Your task to perform on an android device: clear all cookies in the chrome app Image 0: 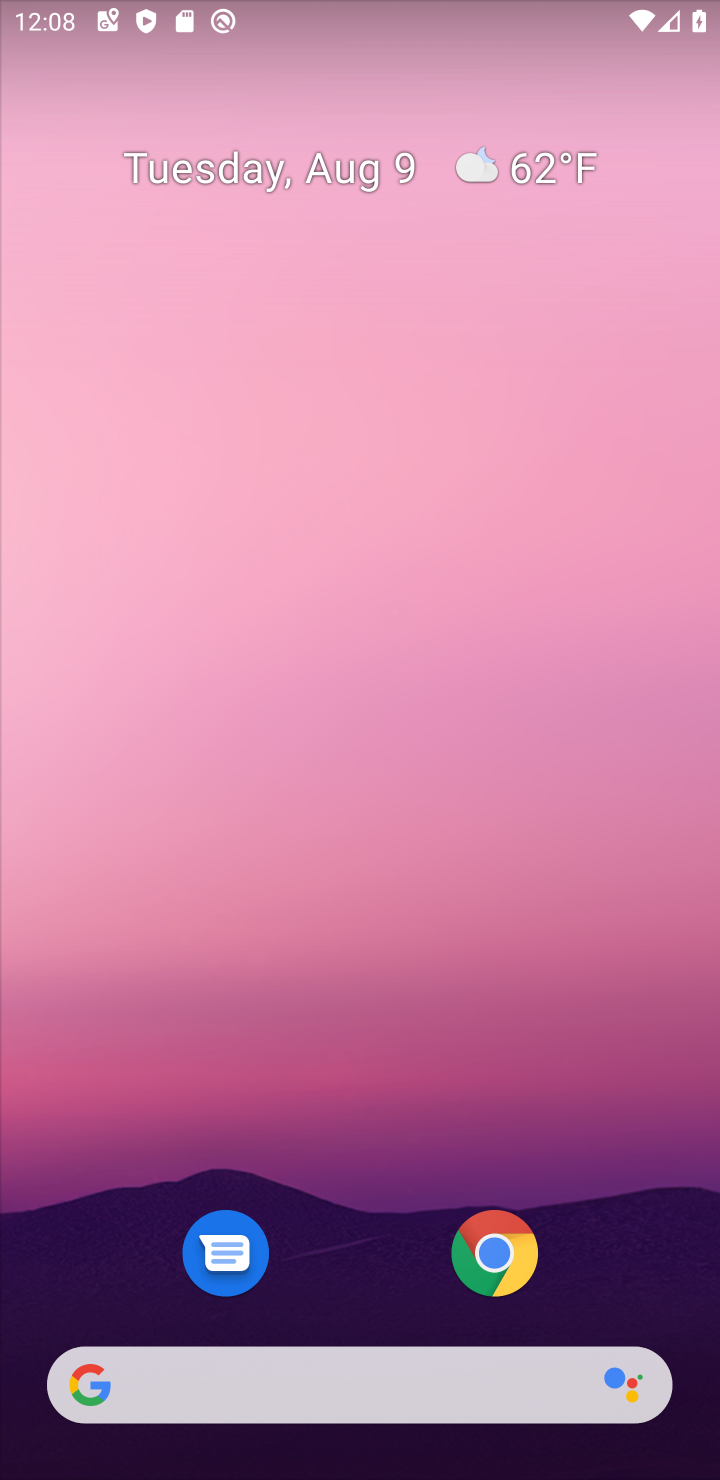
Step 0: drag from (651, 1282) to (440, 93)
Your task to perform on an android device: clear all cookies in the chrome app Image 1: 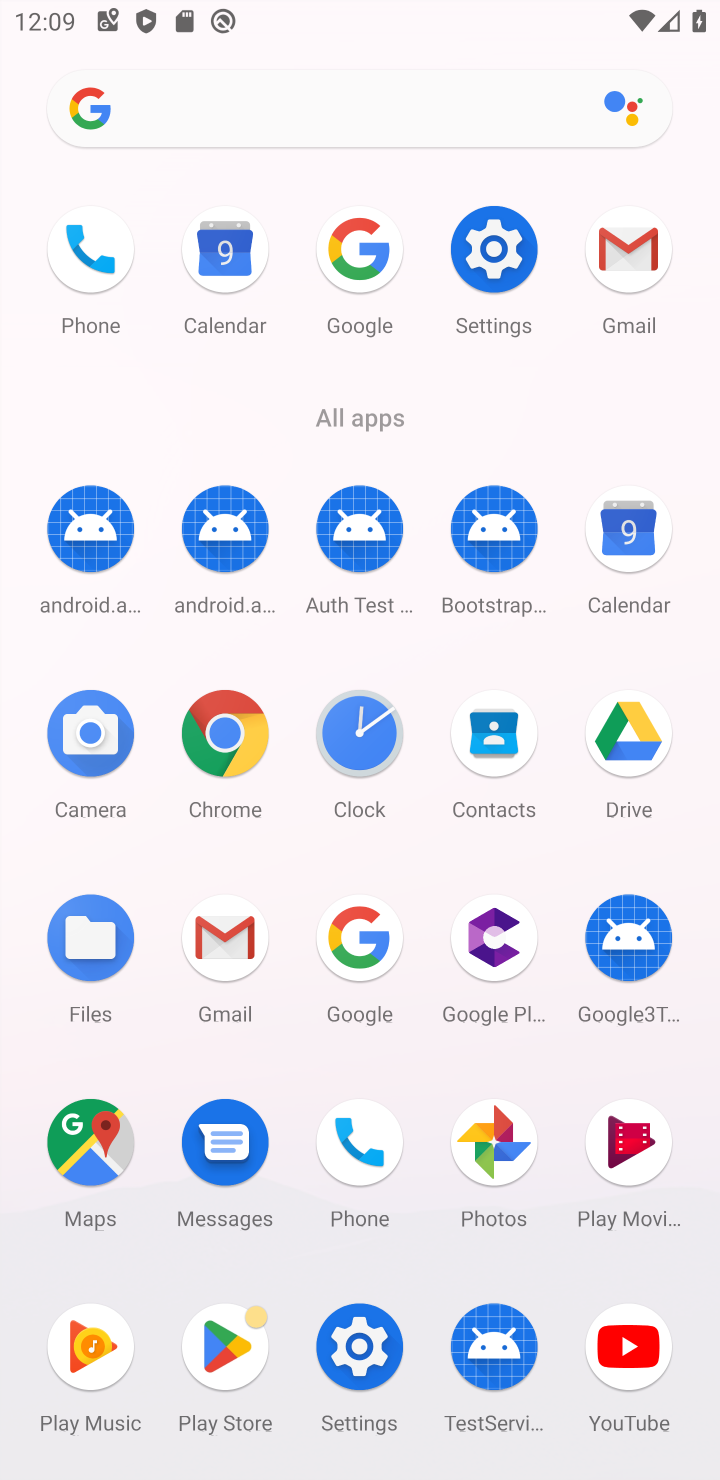
Step 1: click (226, 717)
Your task to perform on an android device: clear all cookies in the chrome app Image 2: 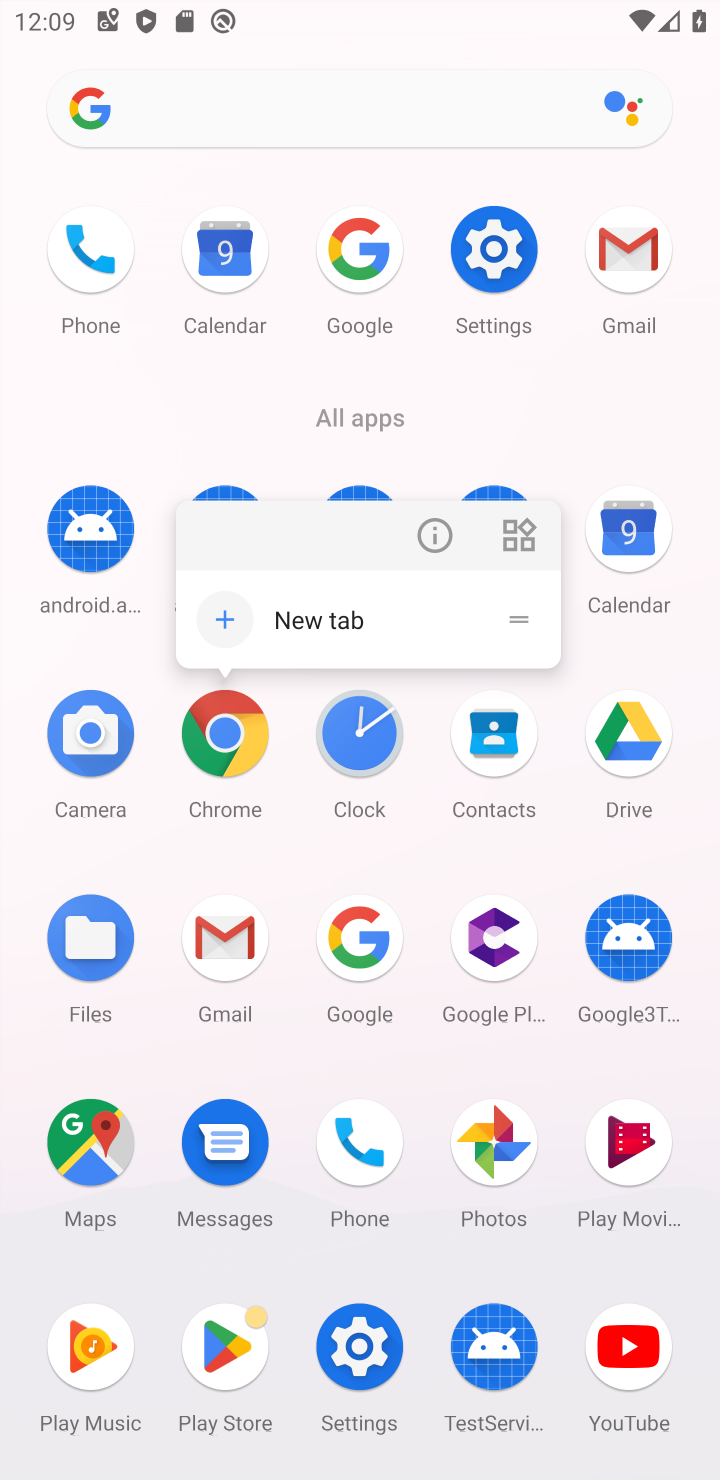
Step 2: click (226, 717)
Your task to perform on an android device: clear all cookies in the chrome app Image 3: 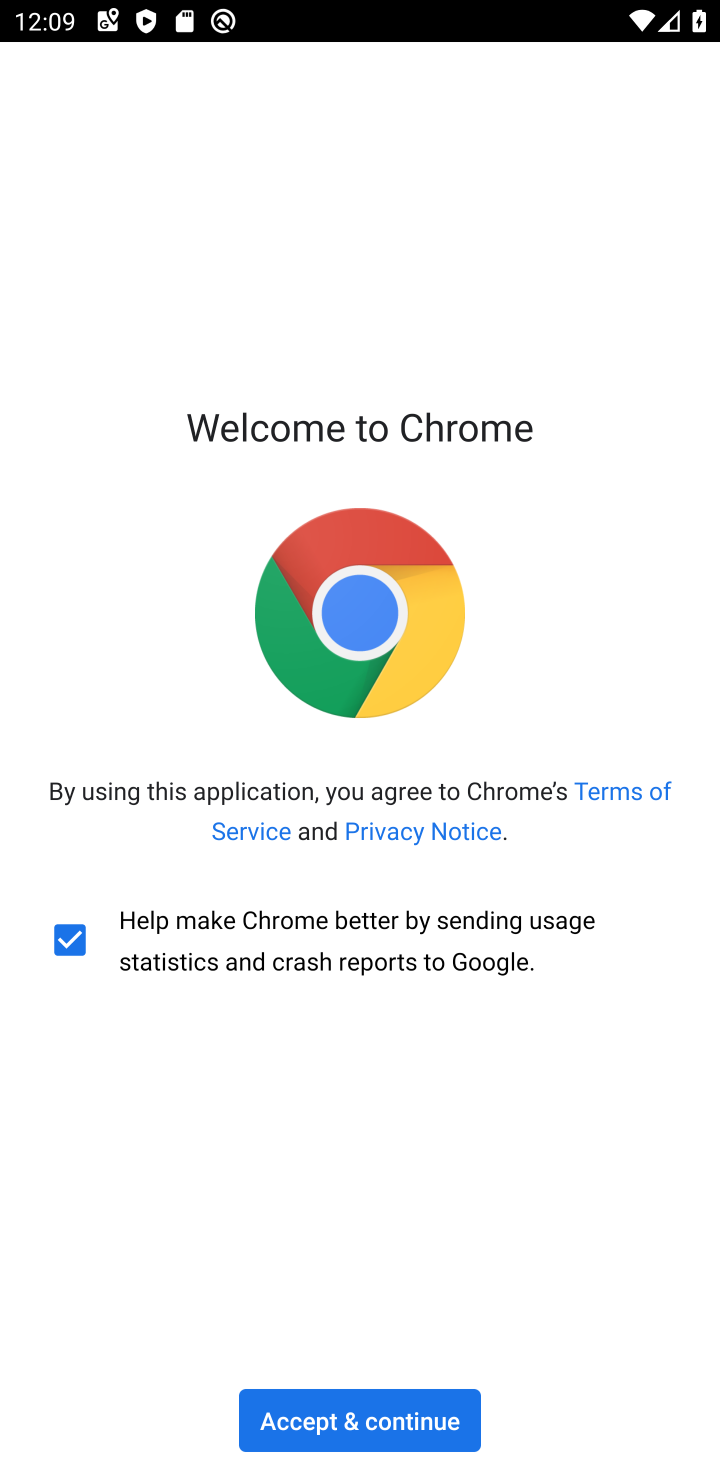
Step 3: click (356, 1417)
Your task to perform on an android device: clear all cookies in the chrome app Image 4: 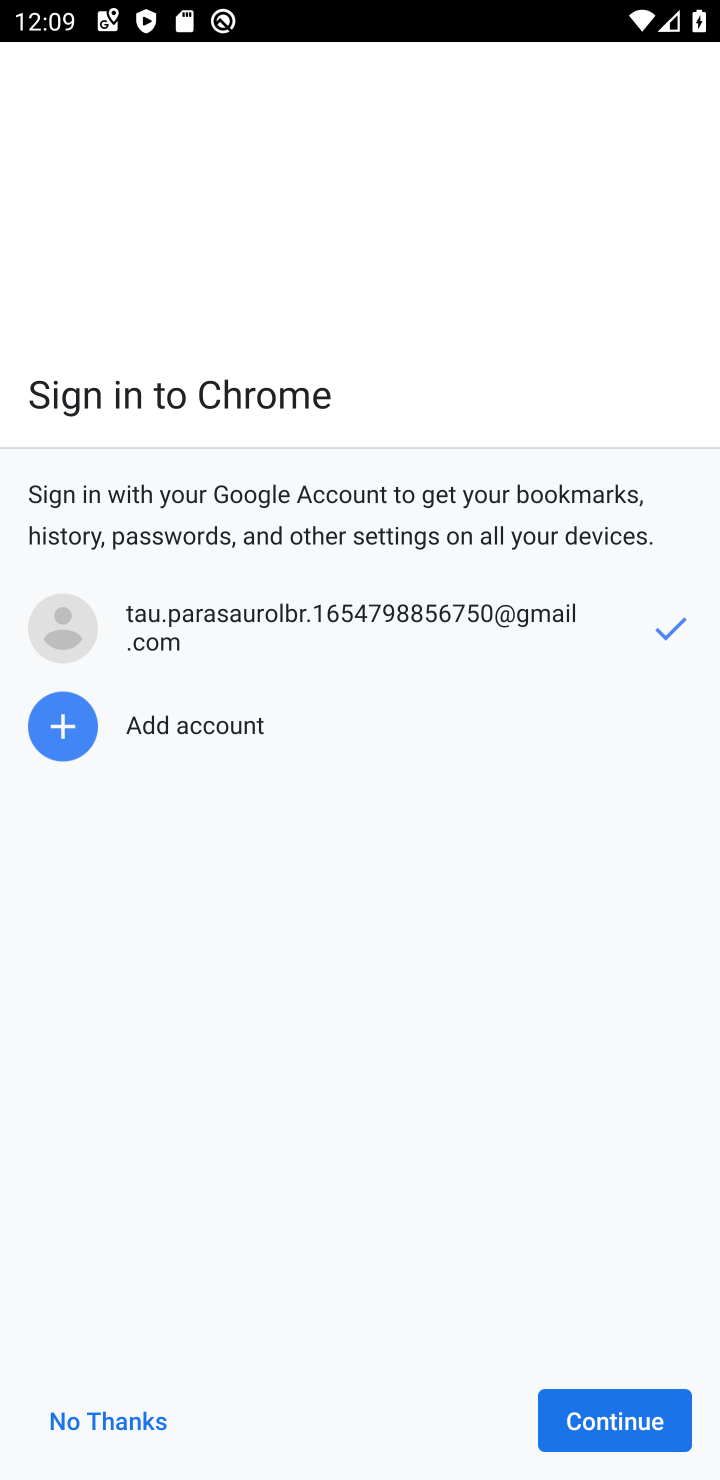
Step 4: click (356, 1417)
Your task to perform on an android device: clear all cookies in the chrome app Image 5: 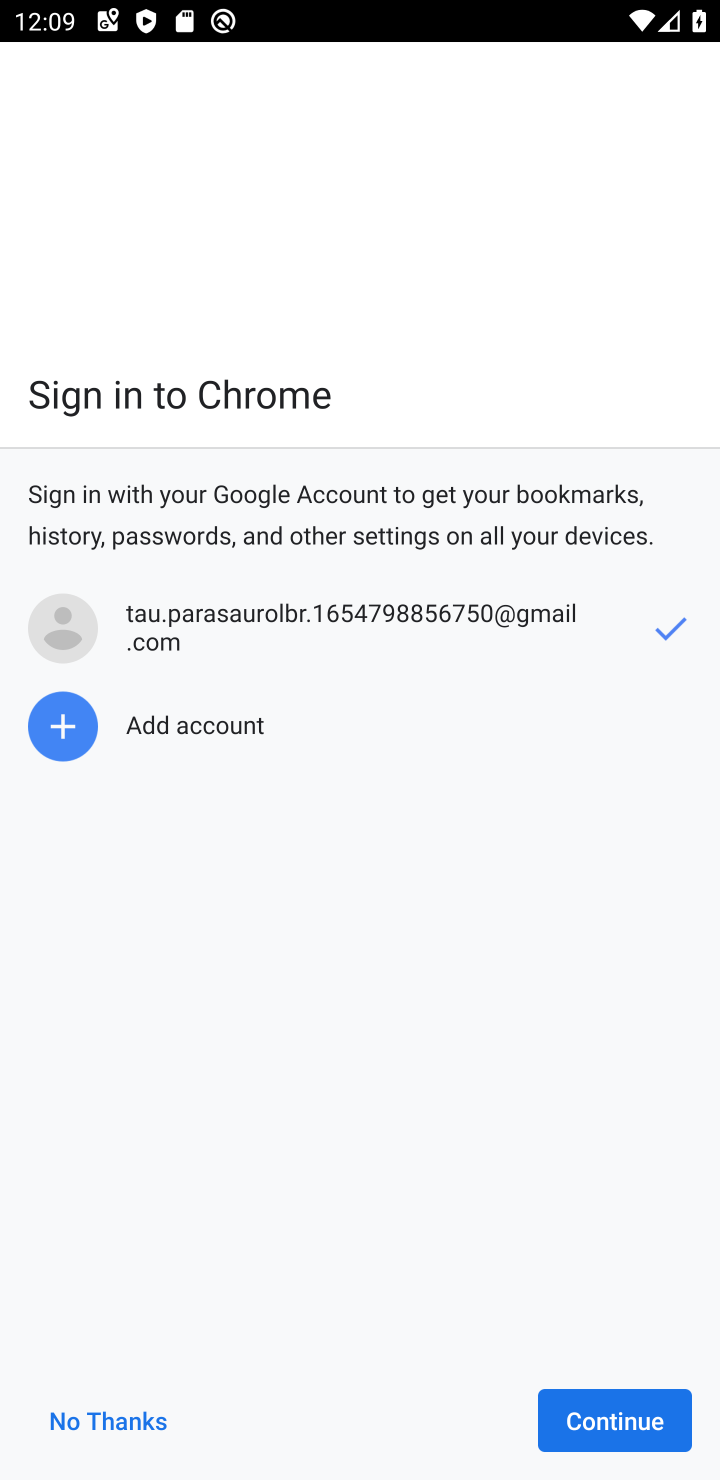
Step 5: click (644, 1416)
Your task to perform on an android device: clear all cookies in the chrome app Image 6: 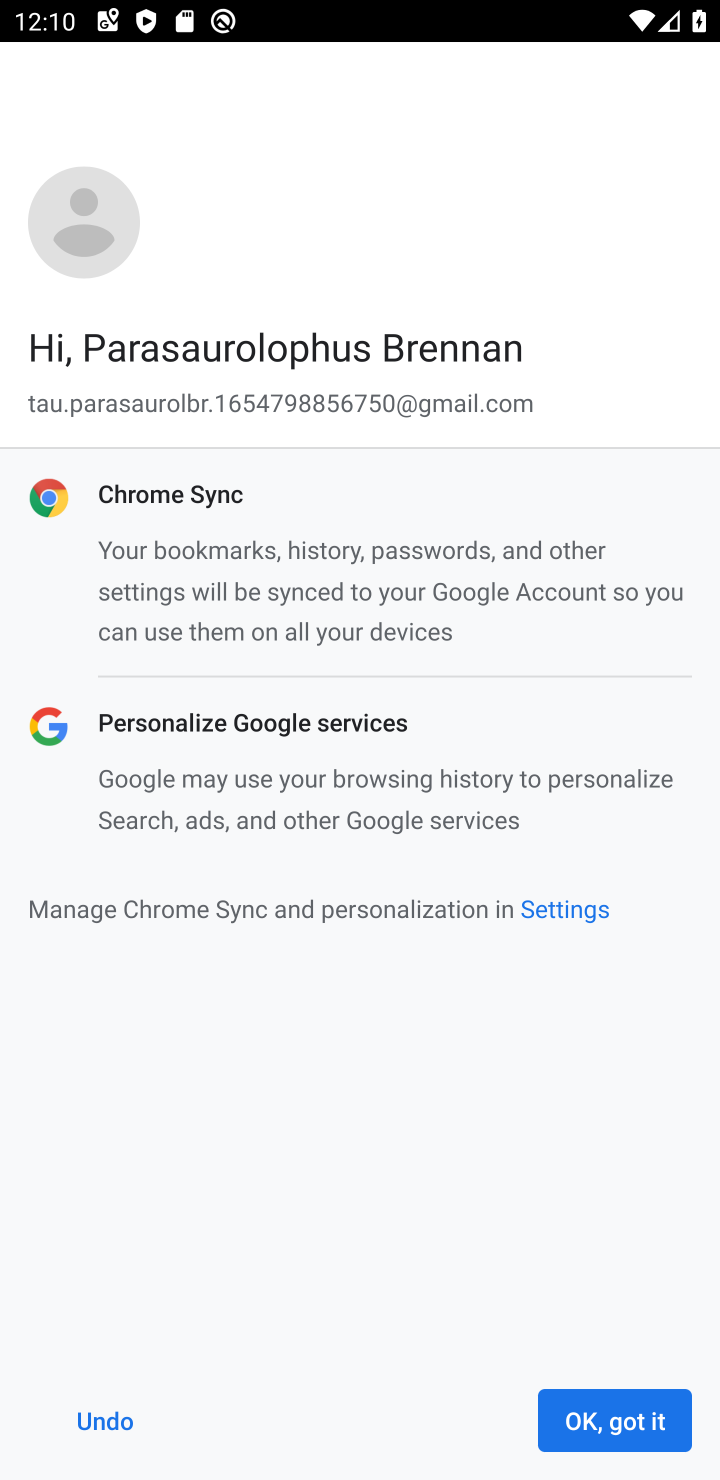
Step 6: click (644, 1416)
Your task to perform on an android device: clear all cookies in the chrome app Image 7: 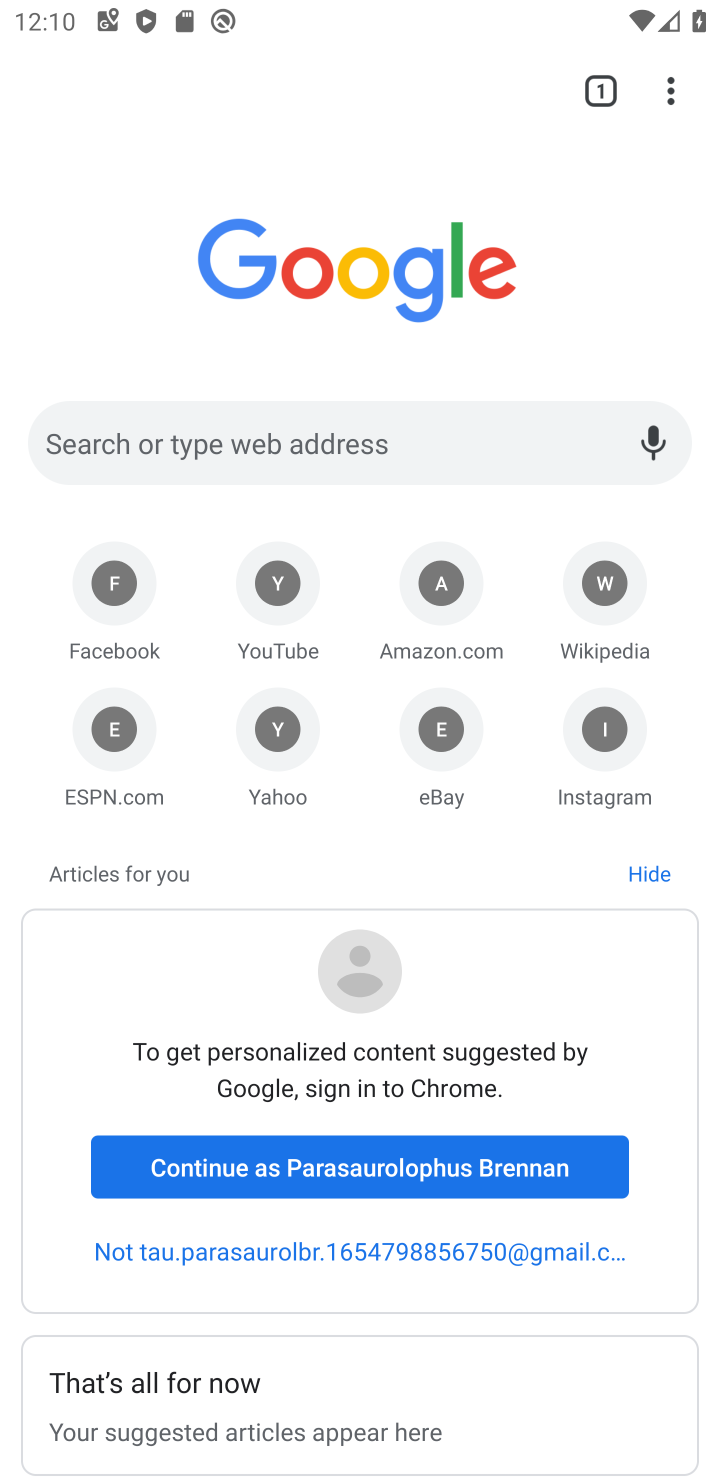
Step 7: click (668, 84)
Your task to perform on an android device: clear all cookies in the chrome app Image 8: 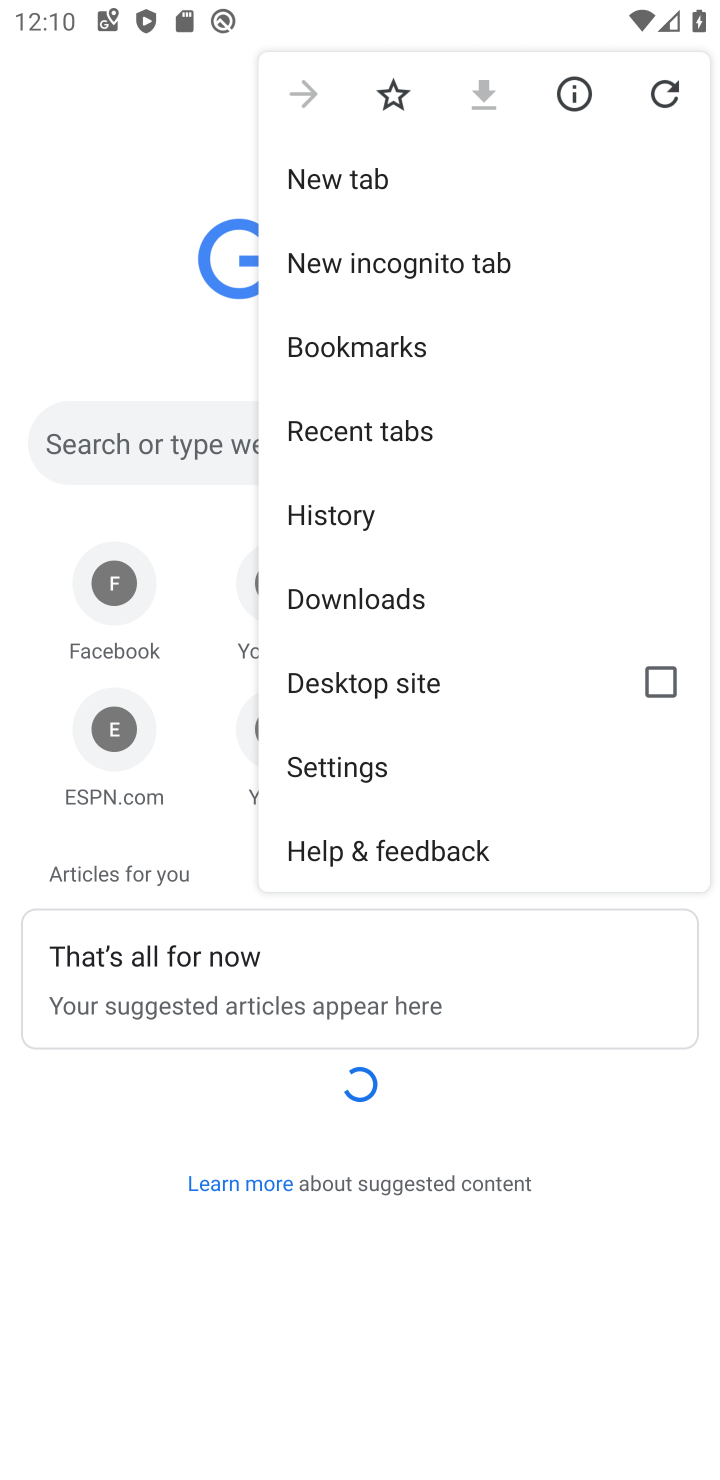
Step 8: click (378, 504)
Your task to perform on an android device: clear all cookies in the chrome app Image 9: 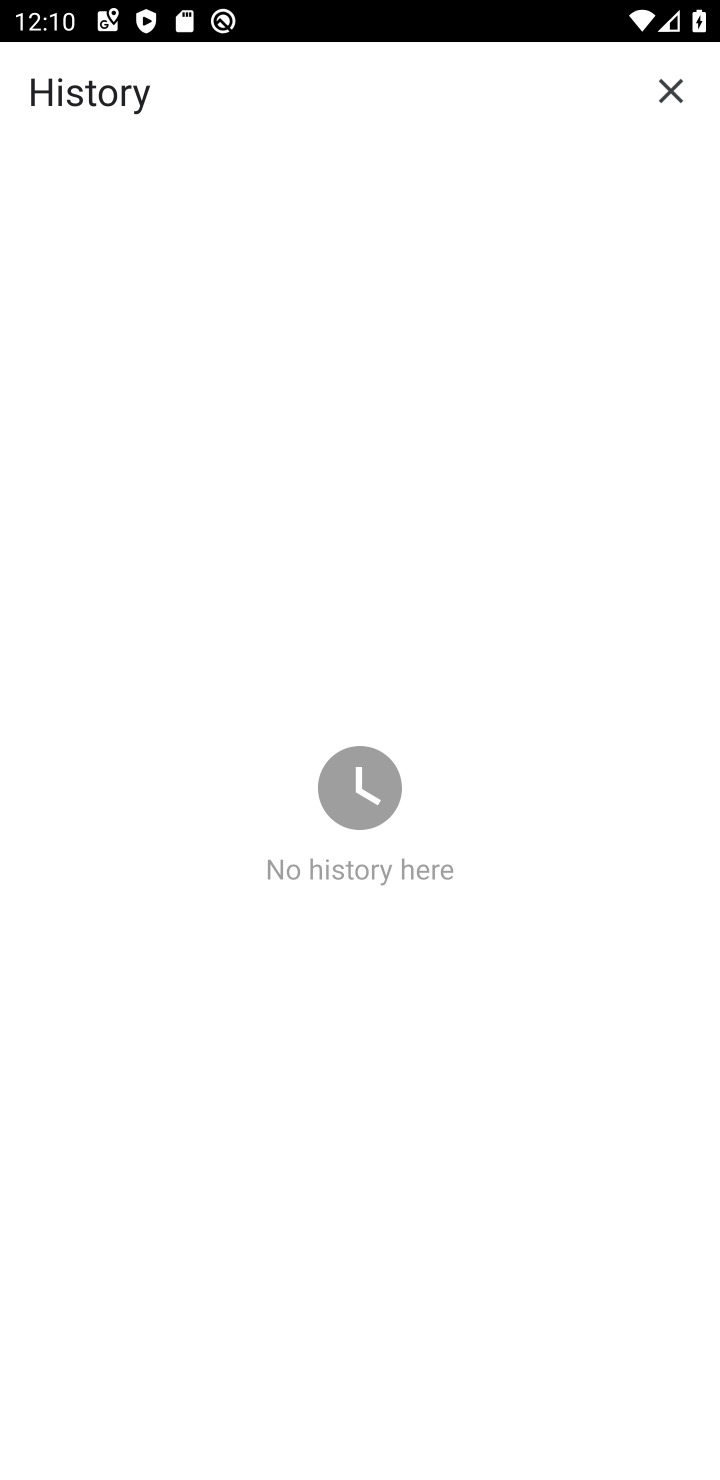
Step 9: task complete